Your task to perform on an android device: Open calendar and show me the third week of next month Image 0: 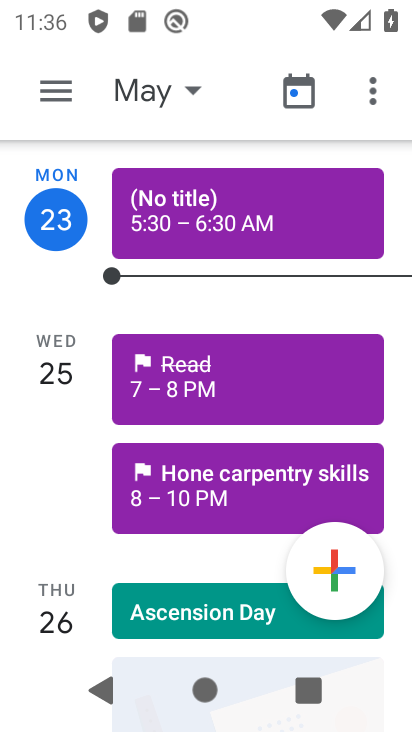
Step 0: click (169, 78)
Your task to perform on an android device: Open calendar and show me the third week of next month Image 1: 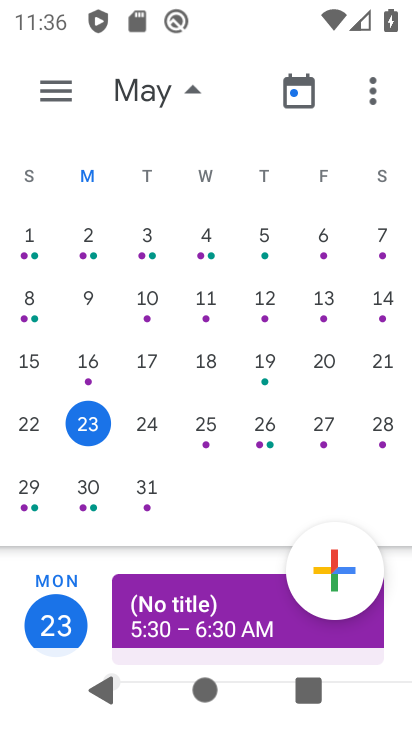
Step 1: drag from (344, 347) to (17, 343)
Your task to perform on an android device: Open calendar and show me the third week of next month Image 2: 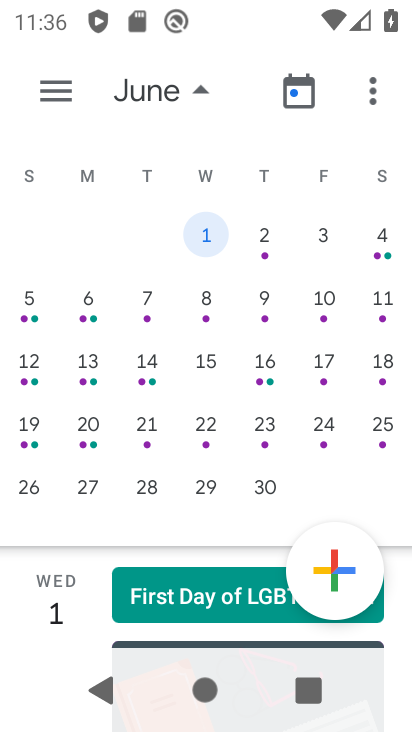
Step 2: click (31, 367)
Your task to perform on an android device: Open calendar and show me the third week of next month Image 3: 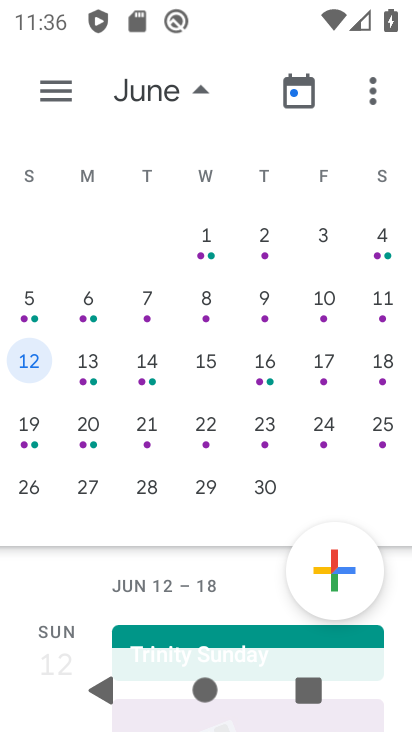
Step 3: task complete